Your task to perform on an android device: Search for flights from Mexico city to Seattle Image 0: 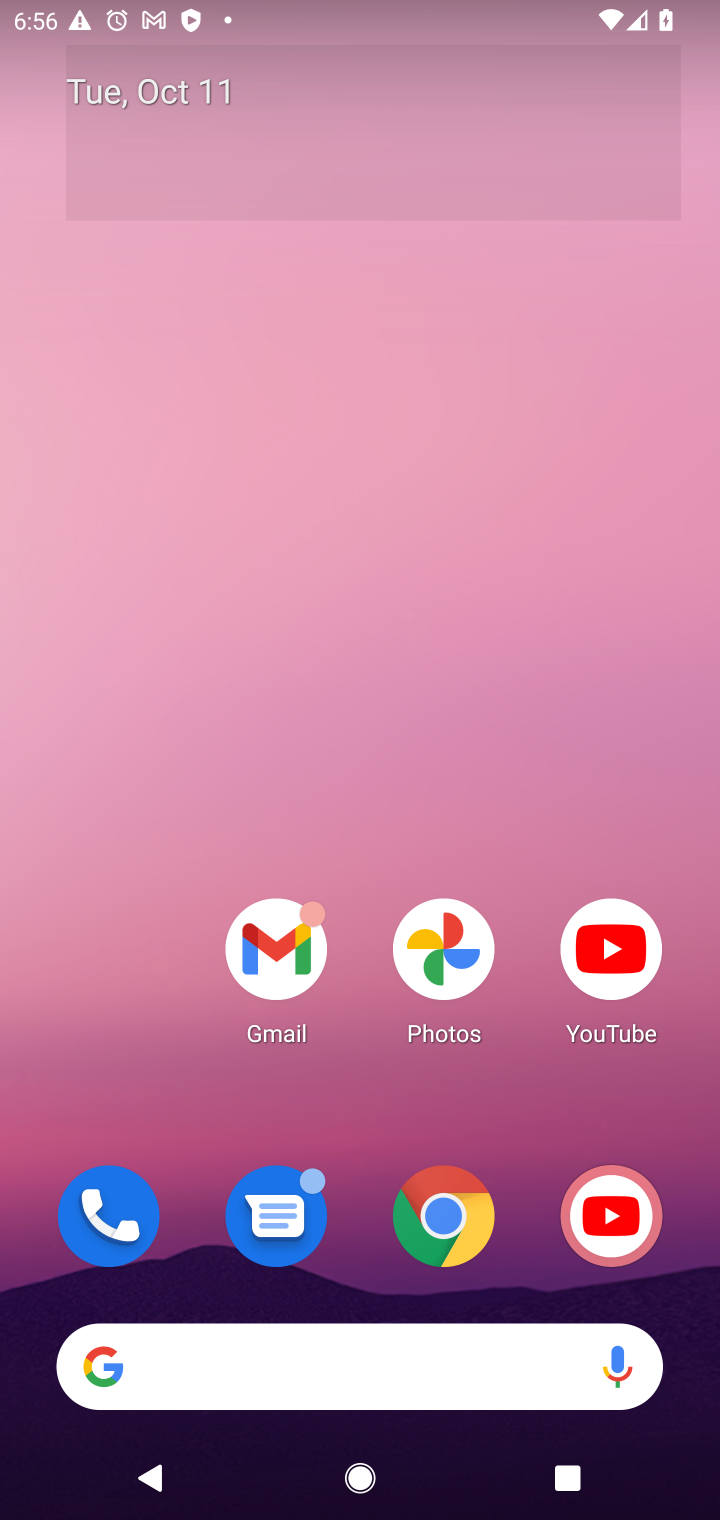
Step 0: click (436, 1245)
Your task to perform on an android device: Search for flights from Mexico city to Seattle Image 1: 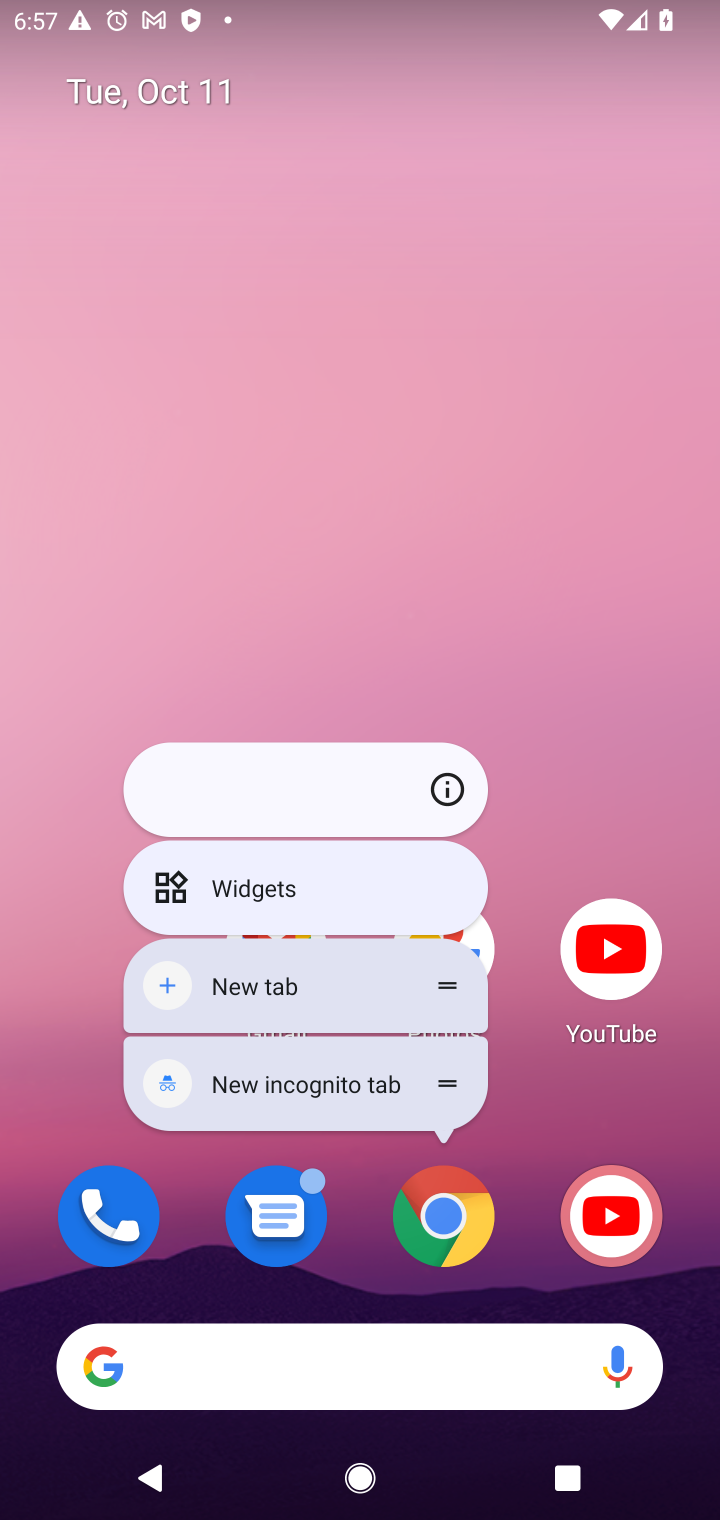
Step 1: click (436, 1245)
Your task to perform on an android device: Search for flights from Mexico city to Seattle Image 2: 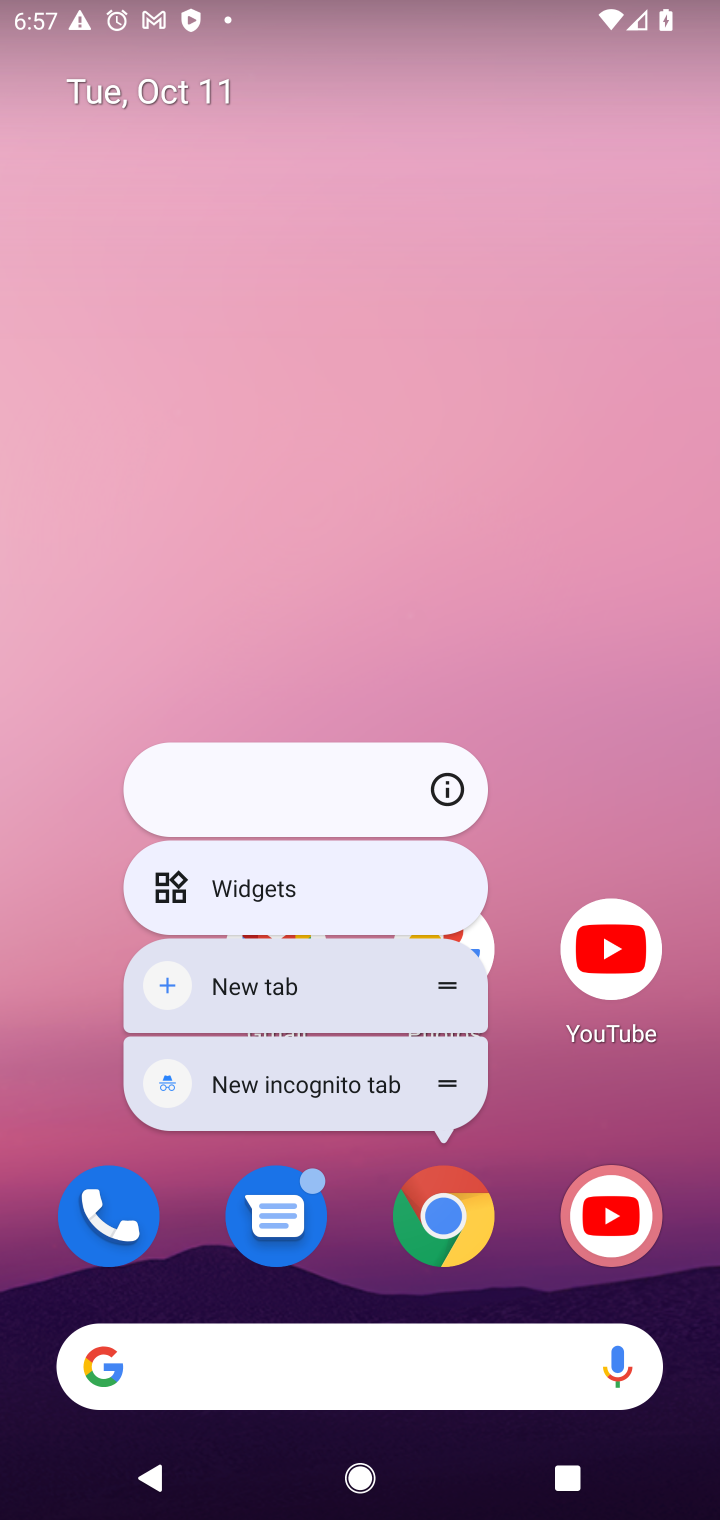
Step 2: drag from (395, 1359) to (308, 101)
Your task to perform on an android device: Search for flights from Mexico city to Seattle Image 3: 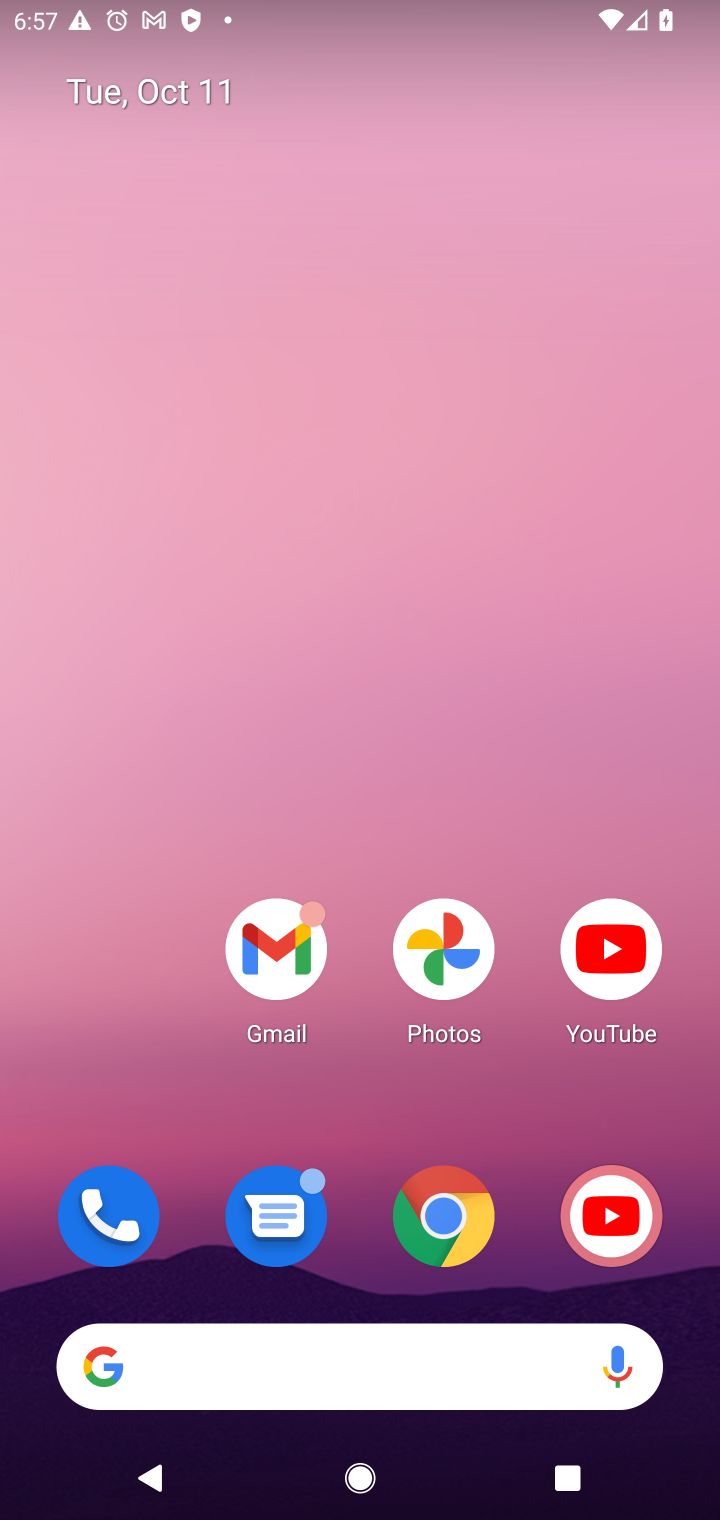
Step 3: drag from (315, 1069) to (295, 166)
Your task to perform on an android device: Search for flights from Mexico city to Seattle Image 4: 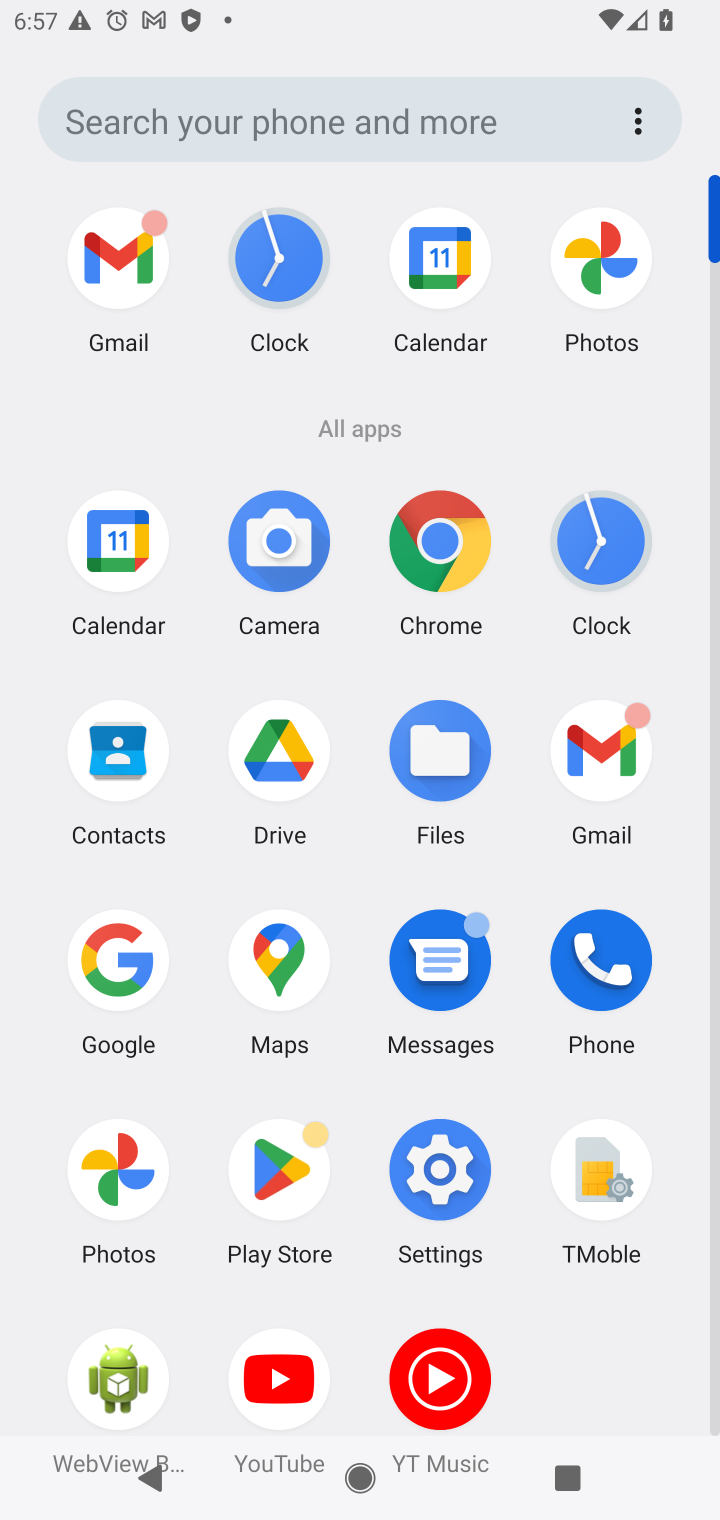
Step 4: click (454, 546)
Your task to perform on an android device: Search for flights from Mexico city to Seattle Image 5: 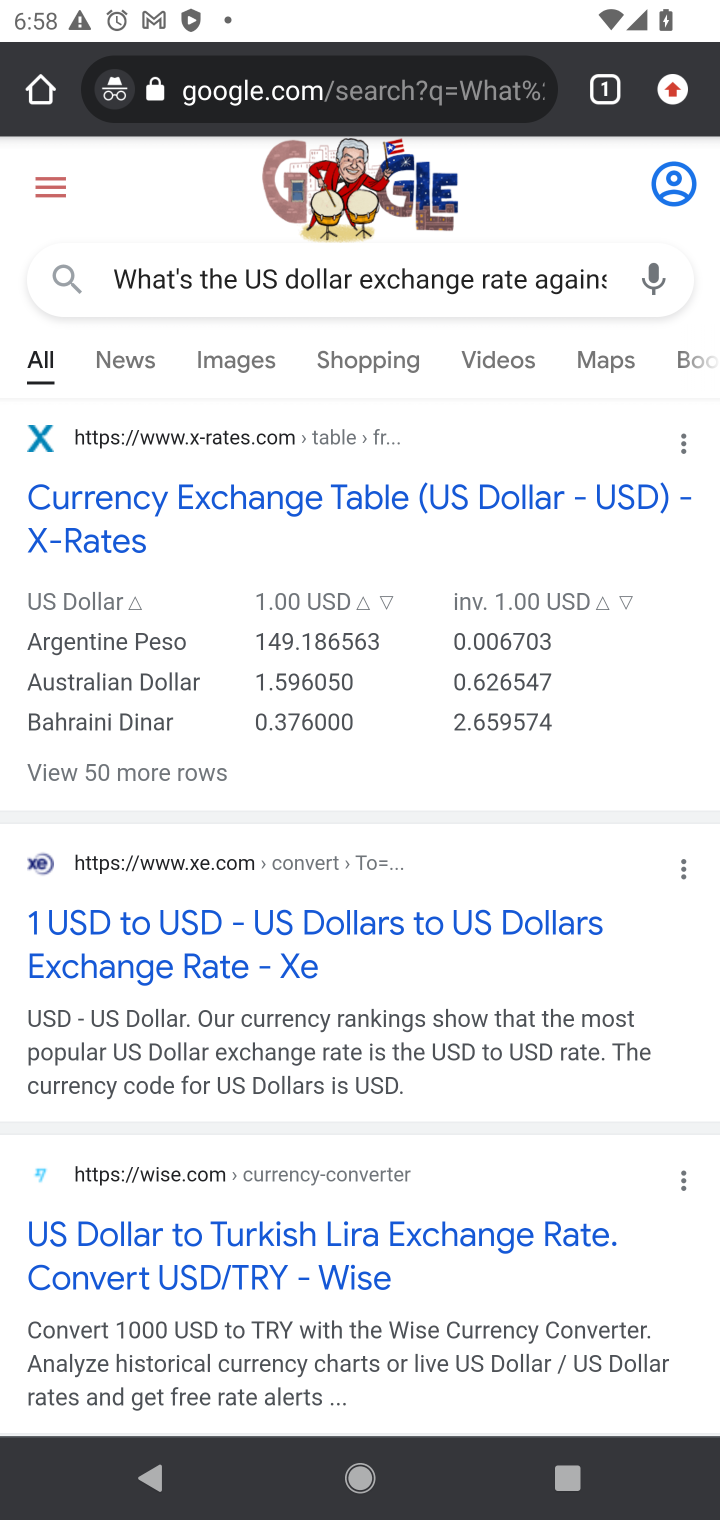
Step 5: task complete